Your task to perform on an android device: turn notification dots on Image 0: 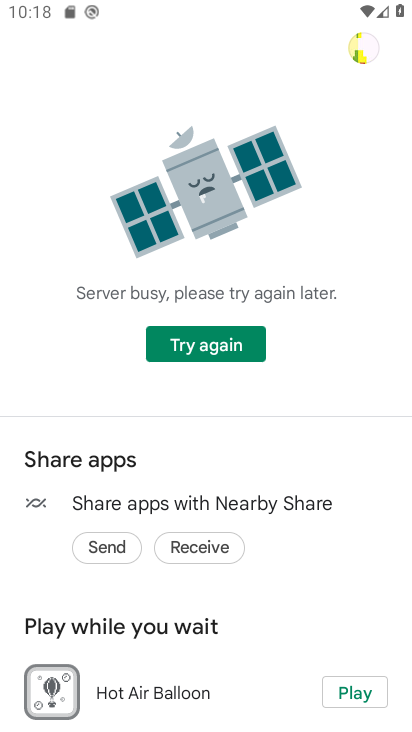
Step 0: press home button
Your task to perform on an android device: turn notification dots on Image 1: 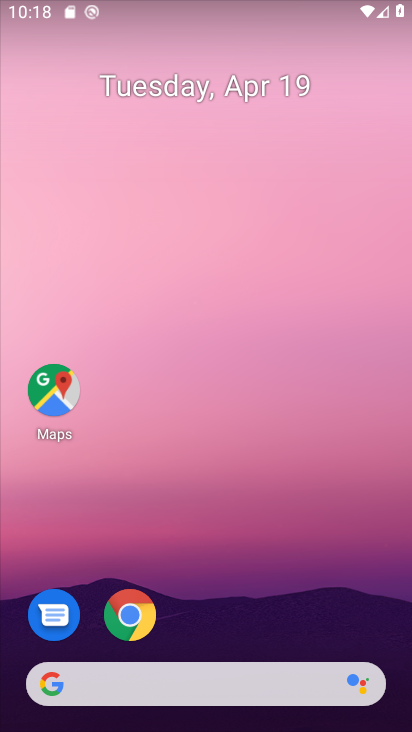
Step 1: drag from (215, 591) to (280, 191)
Your task to perform on an android device: turn notification dots on Image 2: 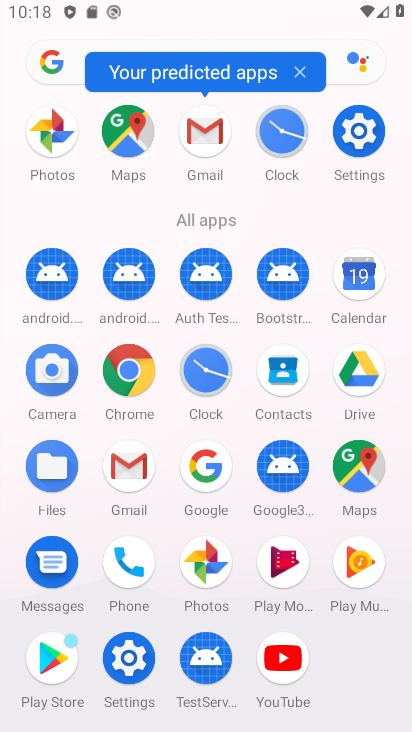
Step 2: click (360, 121)
Your task to perform on an android device: turn notification dots on Image 3: 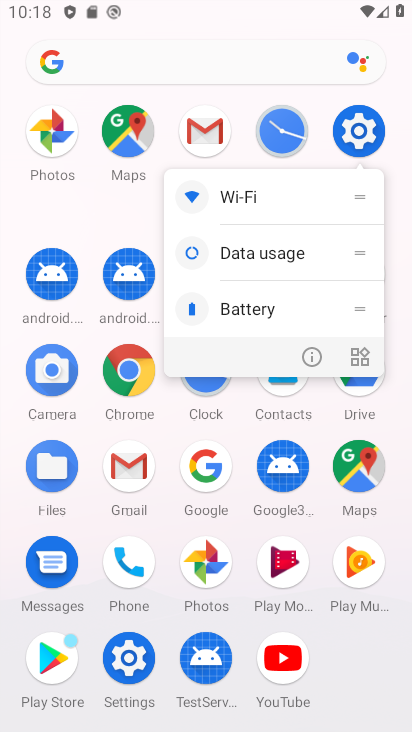
Step 3: click (363, 113)
Your task to perform on an android device: turn notification dots on Image 4: 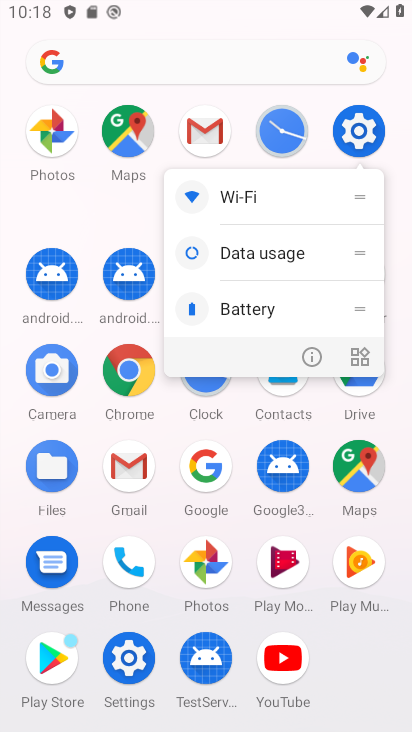
Step 4: click (363, 113)
Your task to perform on an android device: turn notification dots on Image 5: 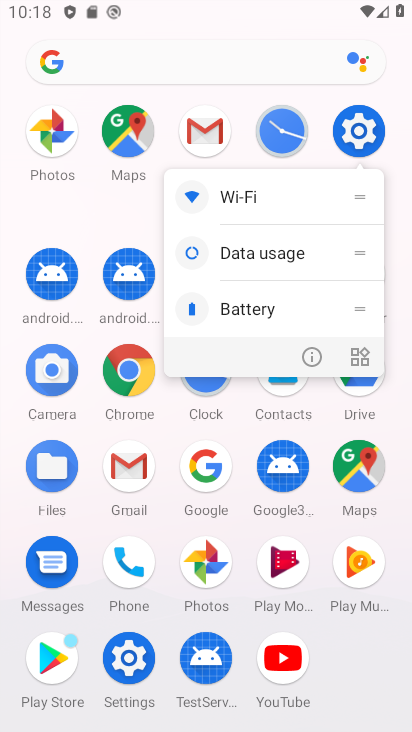
Step 5: click (346, 131)
Your task to perform on an android device: turn notification dots on Image 6: 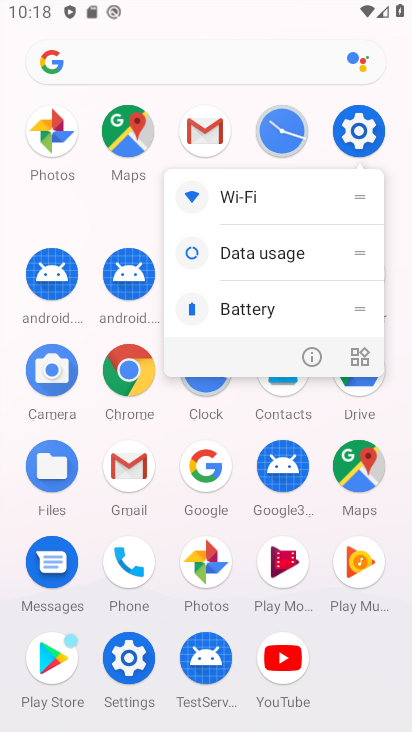
Step 6: click (346, 131)
Your task to perform on an android device: turn notification dots on Image 7: 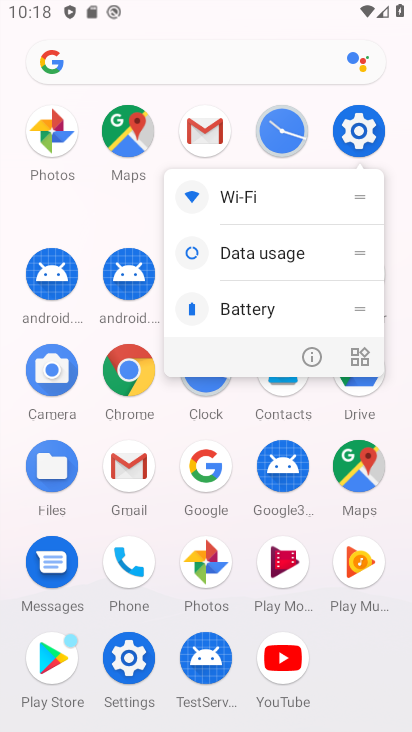
Step 7: click (354, 131)
Your task to perform on an android device: turn notification dots on Image 8: 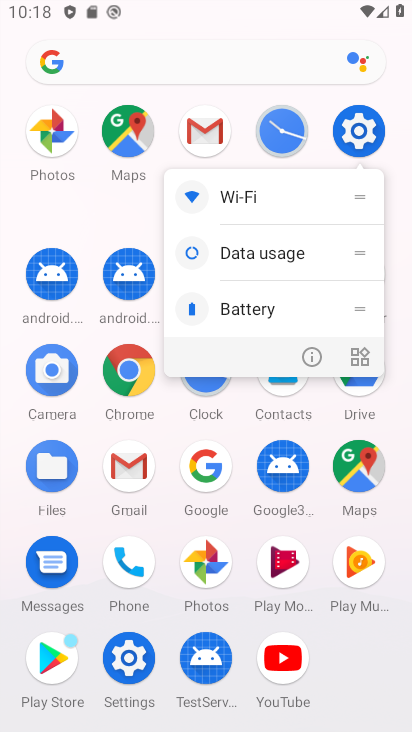
Step 8: click (354, 131)
Your task to perform on an android device: turn notification dots on Image 9: 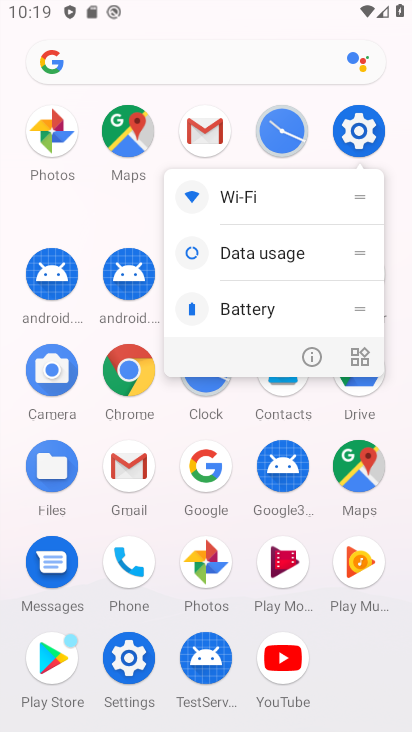
Step 9: click (354, 131)
Your task to perform on an android device: turn notification dots on Image 10: 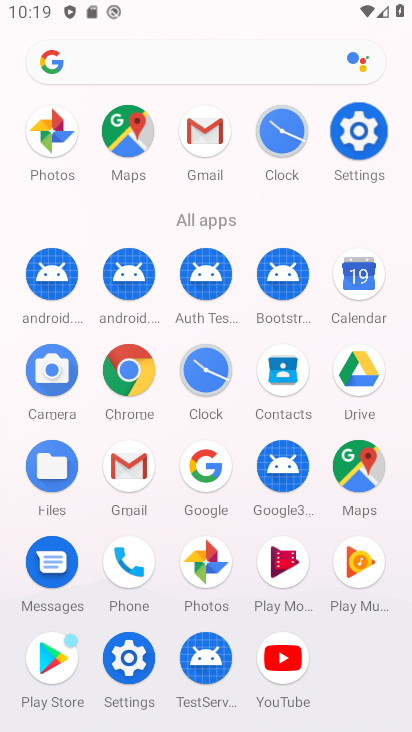
Step 10: click (354, 131)
Your task to perform on an android device: turn notification dots on Image 11: 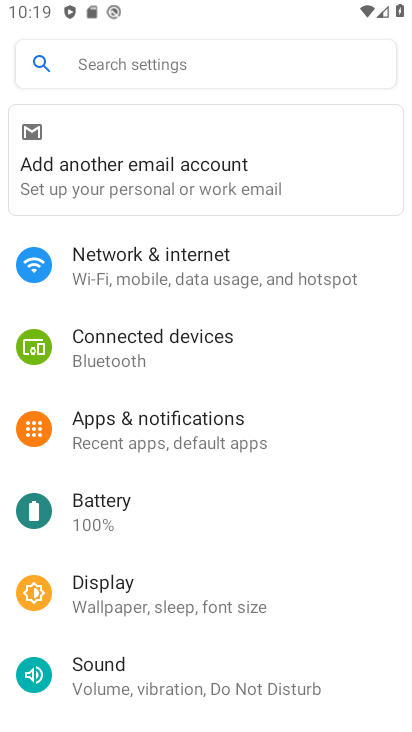
Step 11: click (207, 441)
Your task to perform on an android device: turn notification dots on Image 12: 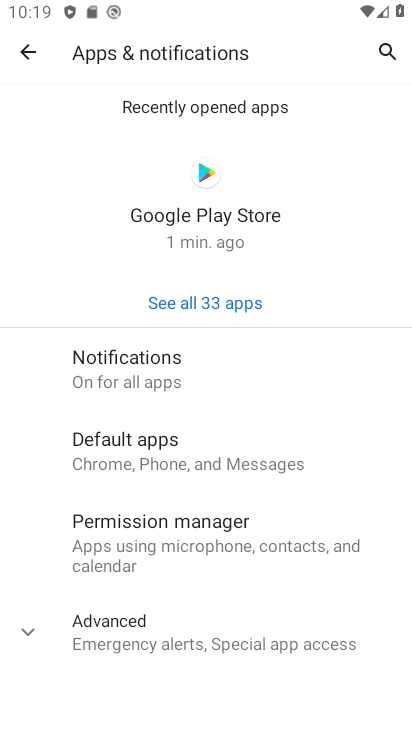
Step 12: click (122, 618)
Your task to perform on an android device: turn notification dots on Image 13: 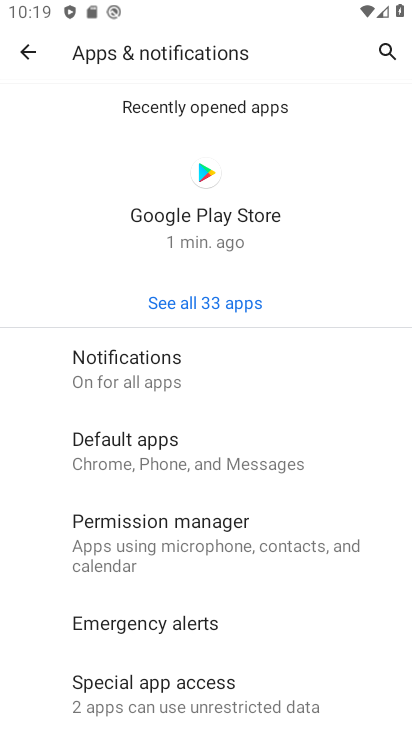
Step 13: drag from (122, 618) to (219, 353)
Your task to perform on an android device: turn notification dots on Image 14: 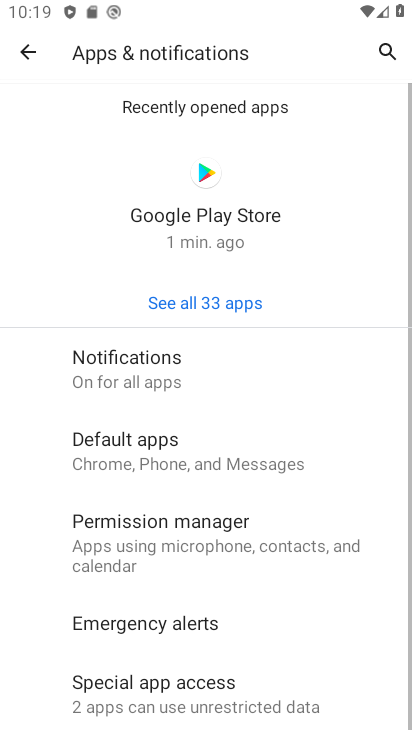
Step 14: click (219, 353)
Your task to perform on an android device: turn notification dots on Image 15: 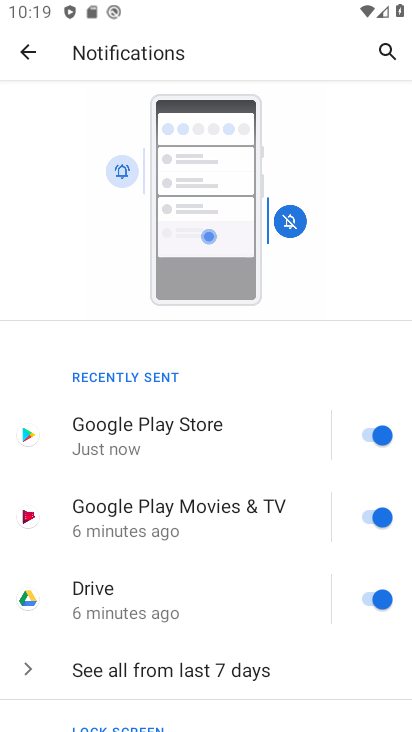
Step 15: drag from (163, 574) to (360, 71)
Your task to perform on an android device: turn notification dots on Image 16: 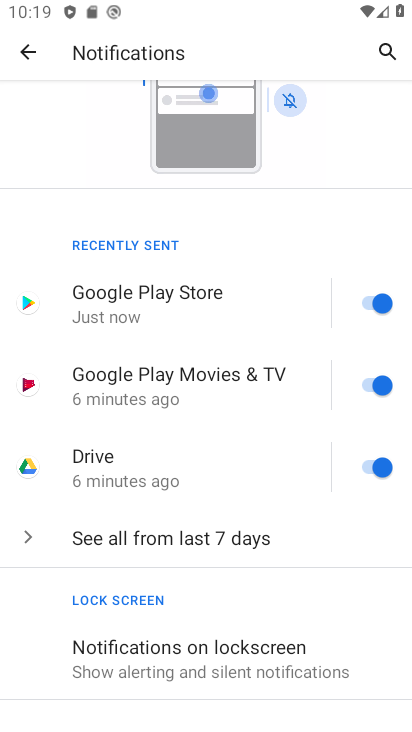
Step 16: drag from (195, 659) to (367, 156)
Your task to perform on an android device: turn notification dots on Image 17: 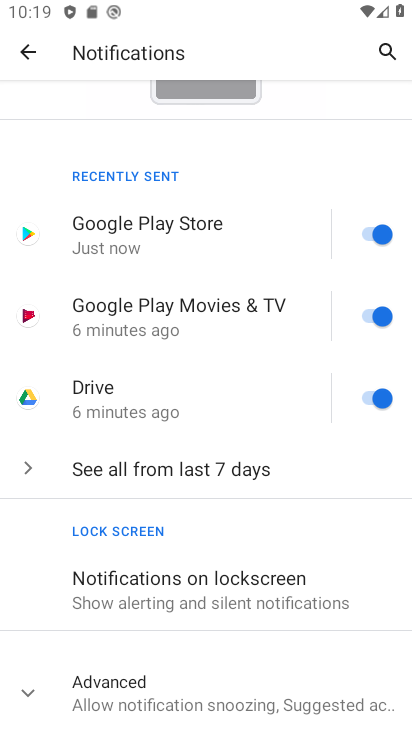
Step 17: click (150, 696)
Your task to perform on an android device: turn notification dots on Image 18: 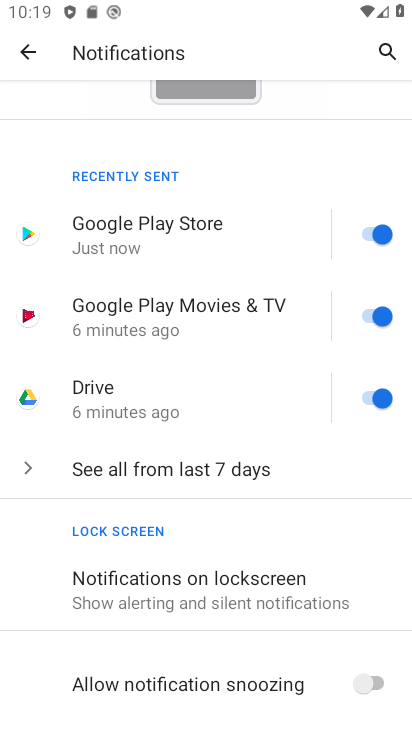
Step 18: task complete